Your task to perform on an android device: turn off notifications in google photos Image 0: 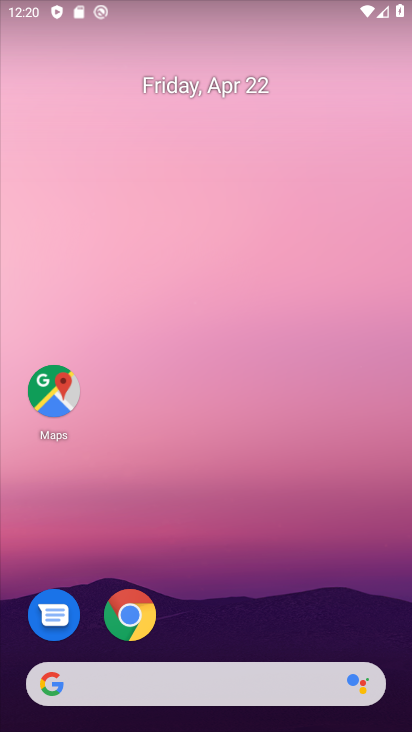
Step 0: drag from (204, 537) to (205, 18)
Your task to perform on an android device: turn off notifications in google photos Image 1: 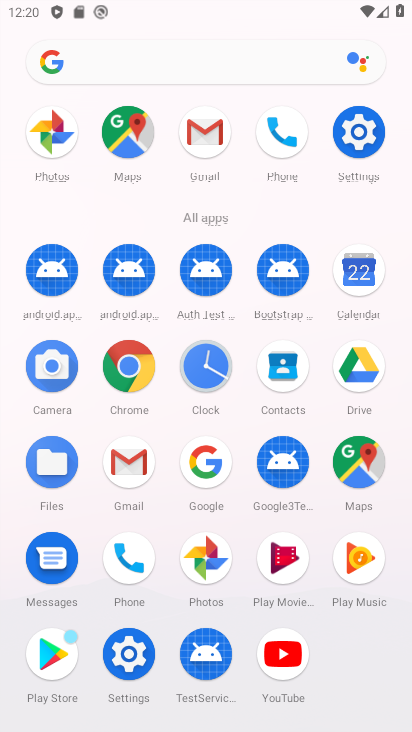
Step 1: drag from (200, 661) to (330, 39)
Your task to perform on an android device: turn off notifications in google photos Image 2: 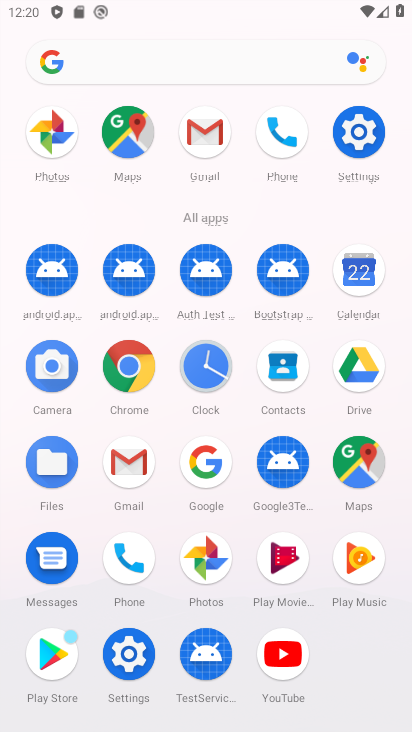
Step 2: click (212, 568)
Your task to perform on an android device: turn off notifications in google photos Image 3: 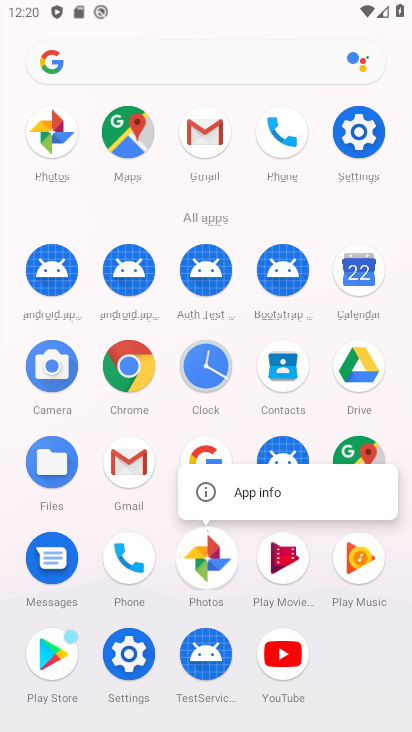
Step 3: click (254, 504)
Your task to perform on an android device: turn off notifications in google photos Image 4: 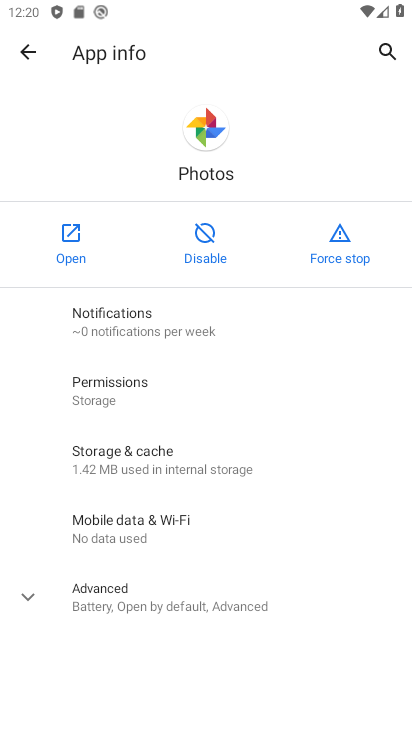
Step 4: click (132, 303)
Your task to perform on an android device: turn off notifications in google photos Image 5: 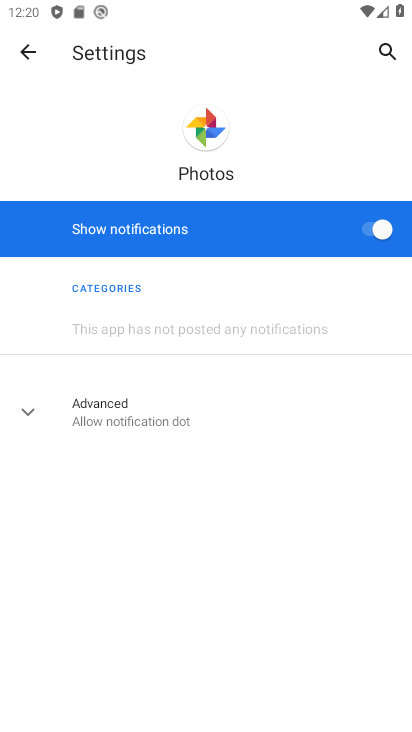
Step 5: click (365, 231)
Your task to perform on an android device: turn off notifications in google photos Image 6: 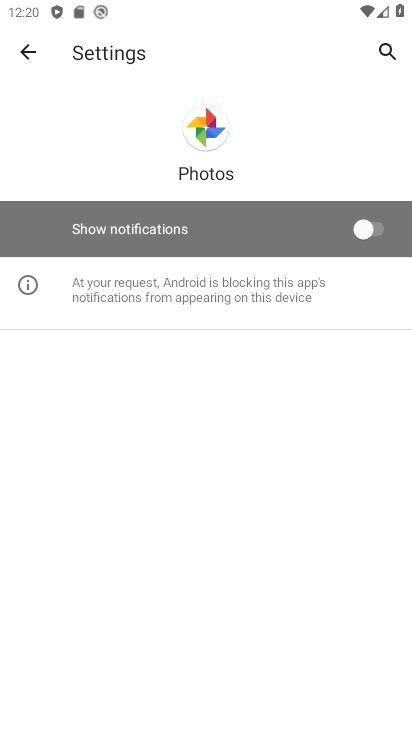
Step 6: task complete